Your task to perform on an android device: Open network settings Image 0: 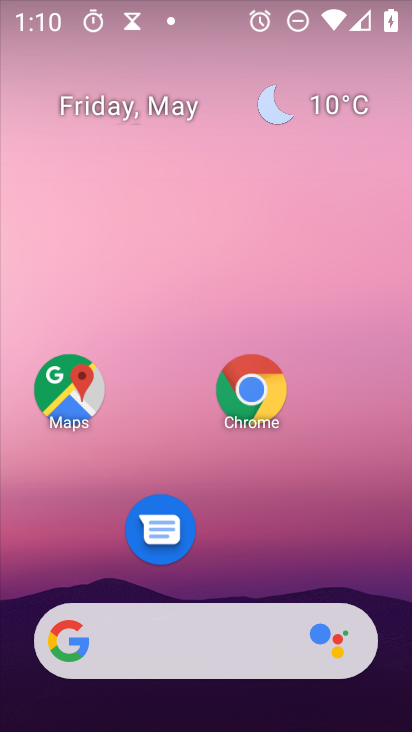
Step 0: press home button
Your task to perform on an android device: Open network settings Image 1: 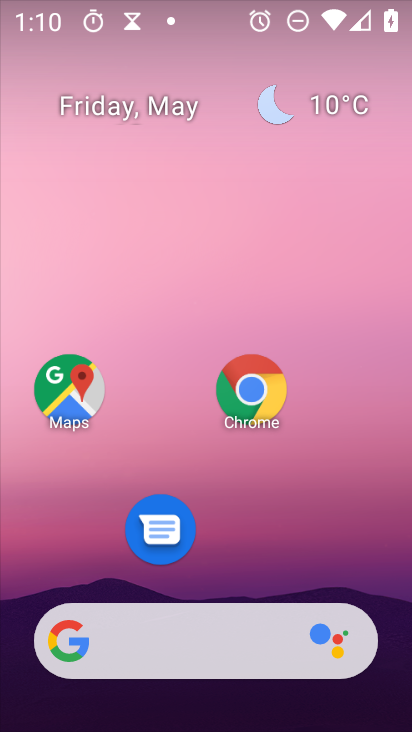
Step 1: drag from (206, 493) to (279, 148)
Your task to perform on an android device: Open network settings Image 2: 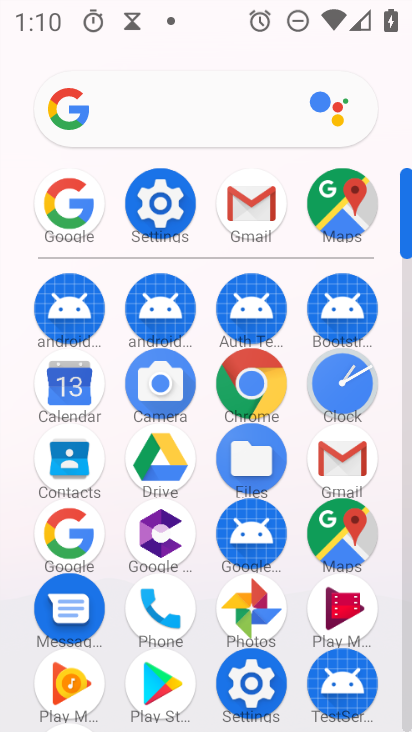
Step 2: click (169, 212)
Your task to perform on an android device: Open network settings Image 3: 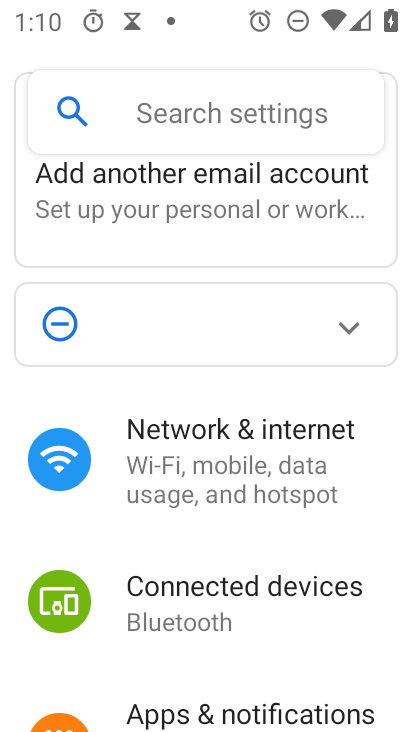
Step 3: click (192, 429)
Your task to perform on an android device: Open network settings Image 4: 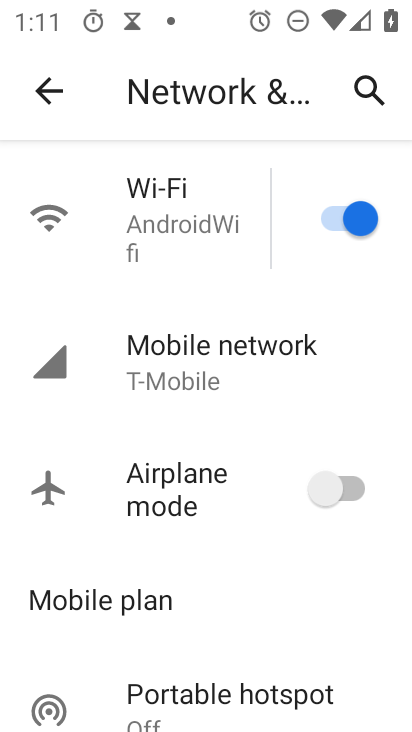
Step 4: task complete